Your task to perform on an android device: Go to location settings Image 0: 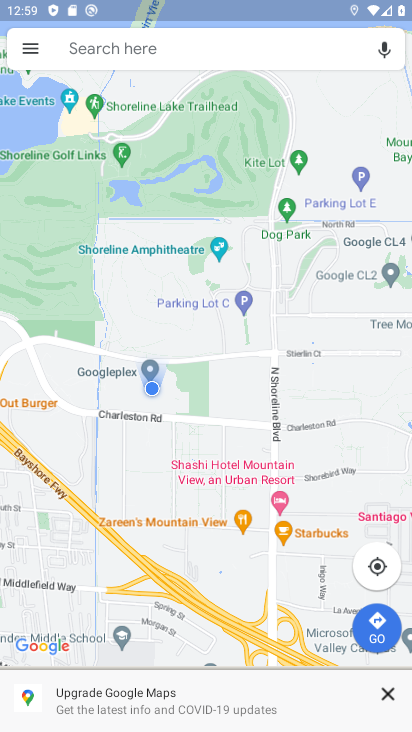
Step 0: press home button
Your task to perform on an android device: Go to location settings Image 1: 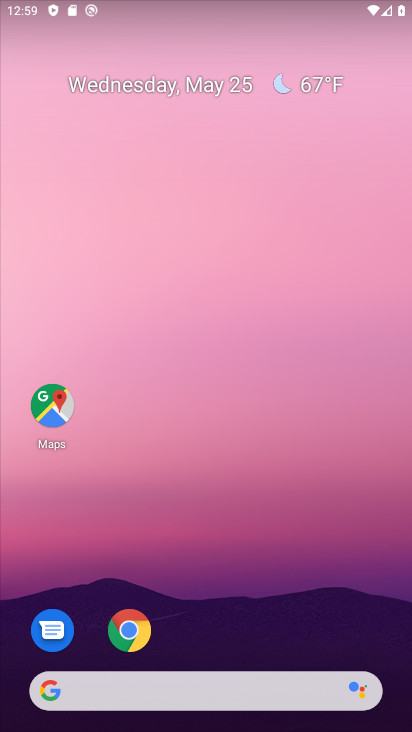
Step 1: drag from (194, 655) to (208, 122)
Your task to perform on an android device: Go to location settings Image 2: 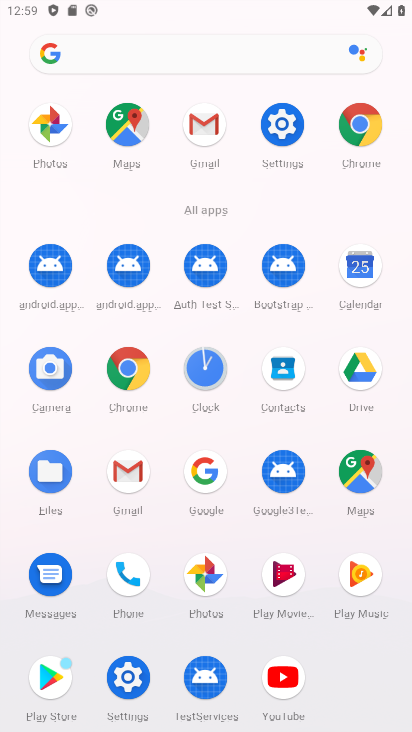
Step 2: click (277, 121)
Your task to perform on an android device: Go to location settings Image 3: 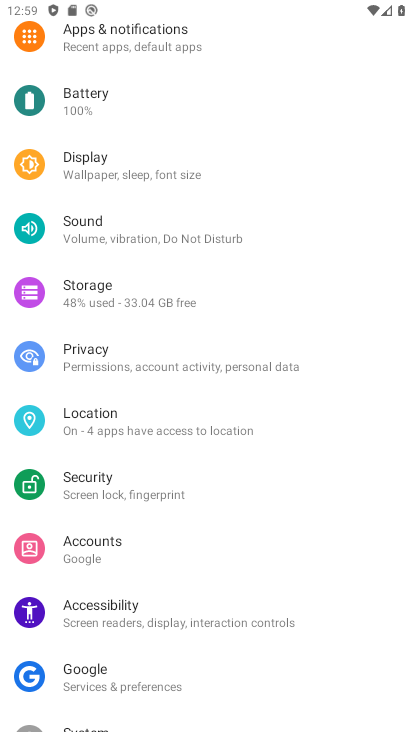
Step 3: click (132, 418)
Your task to perform on an android device: Go to location settings Image 4: 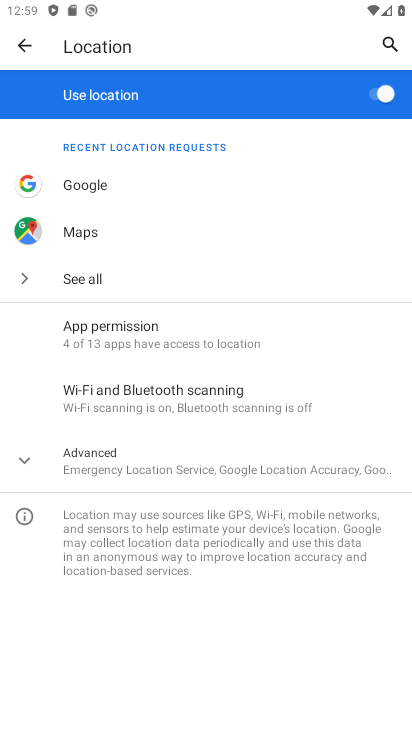
Step 4: click (79, 455)
Your task to perform on an android device: Go to location settings Image 5: 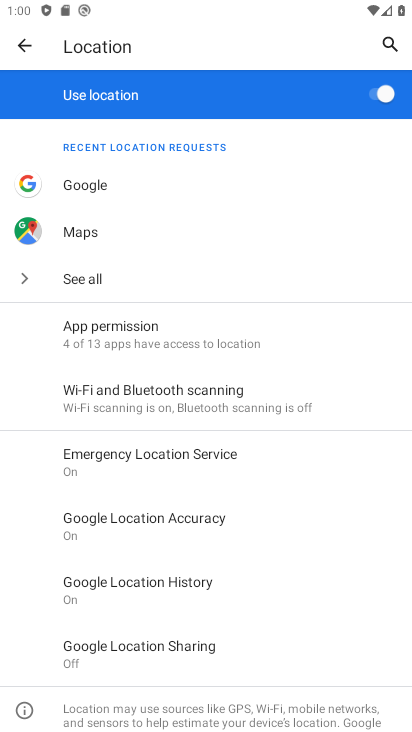
Step 5: task complete